Your task to perform on an android device: change notifications settings Image 0: 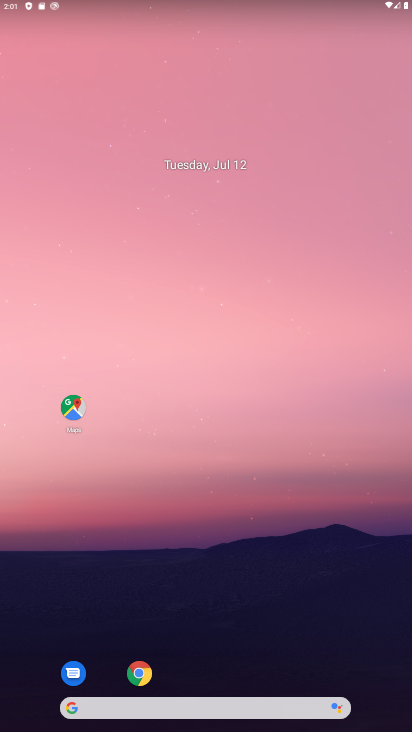
Step 0: drag from (278, 664) to (11, 85)
Your task to perform on an android device: change notifications settings Image 1: 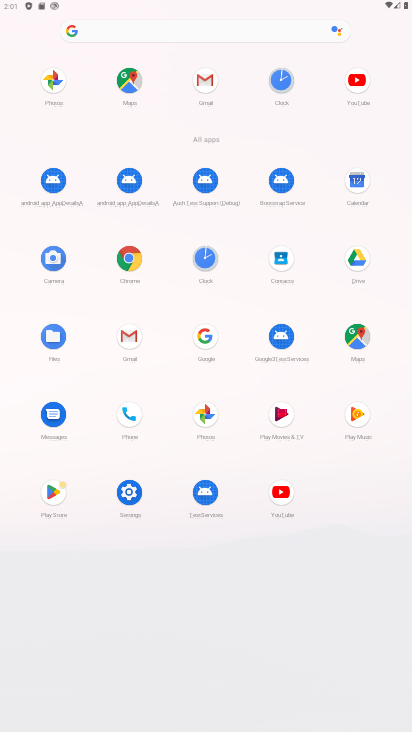
Step 1: click (126, 494)
Your task to perform on an android device: change notifications settings Image 2: 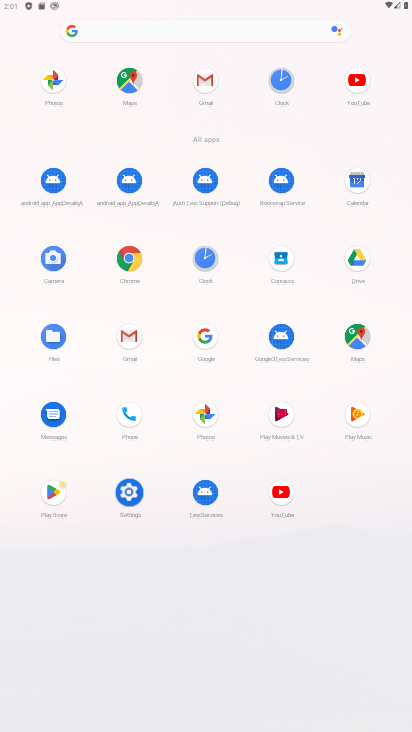
Step 2: click (126, 494)
Your task to perform on an android device: change notifications settings Image 3: 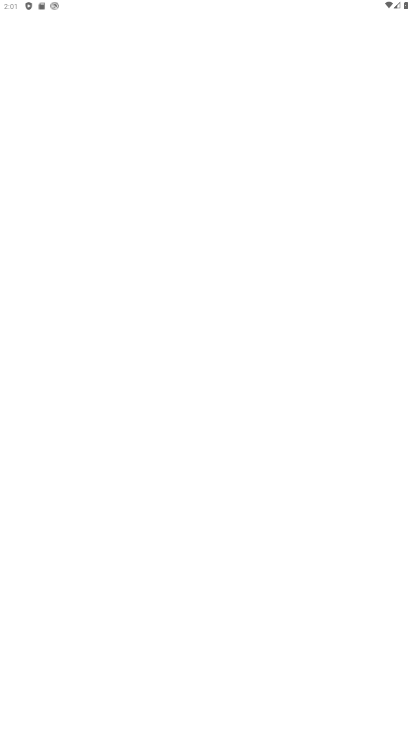
Step 3: click (126, 494)
Your task to perform on an android device: change notifications settings Image 4: 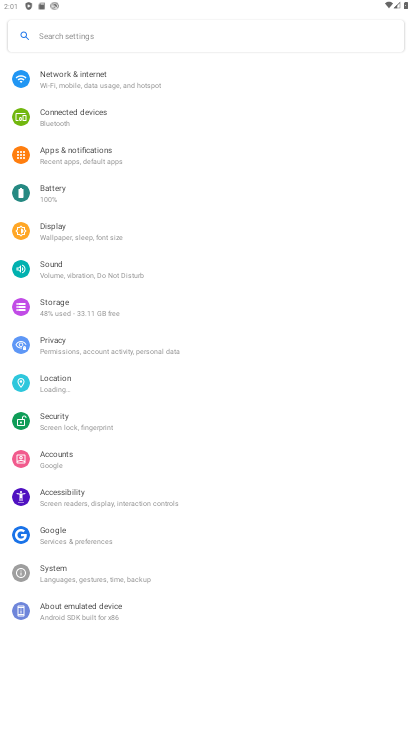
Step 4: click (126, 495)
Your task to perform on an android device: change notifications settings Image 5: 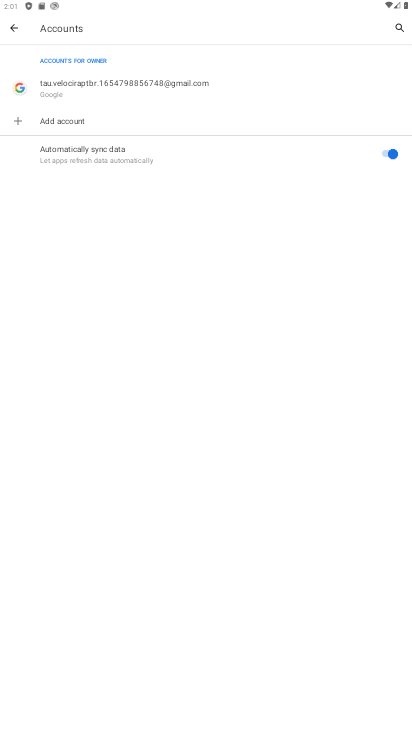
Step 5: click (10, 34)
Your task to perform on an android device: change notifications settings Image 6: 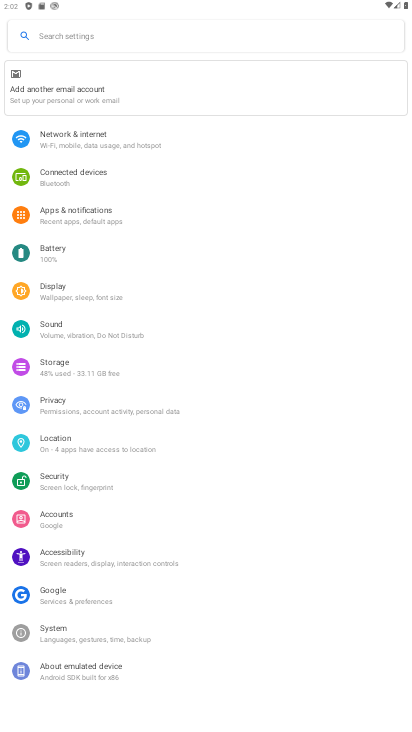
Step 6: click (64, 203)
Your task to perform on an android device: change notifications settings Image 7: 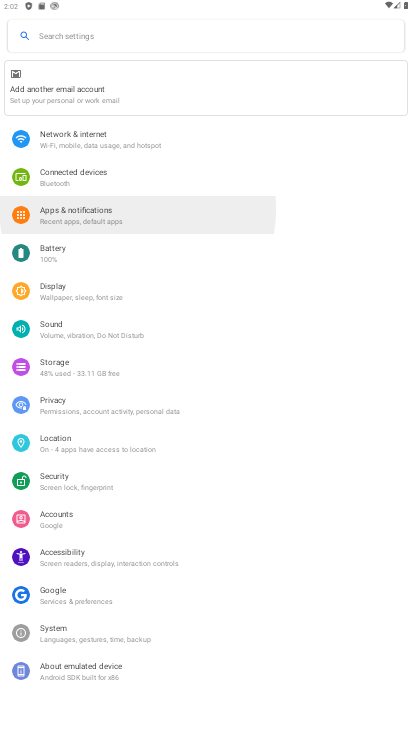
Step 7: click (64, 203)
Your task to perform on an android device: change notifications settings Image 8: 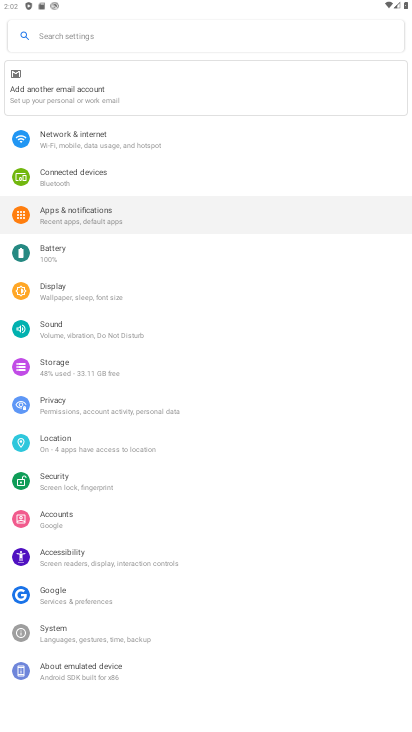
Step 8: click (58, 208)
Your task to perform on an android device: change notifications settings Image 9: 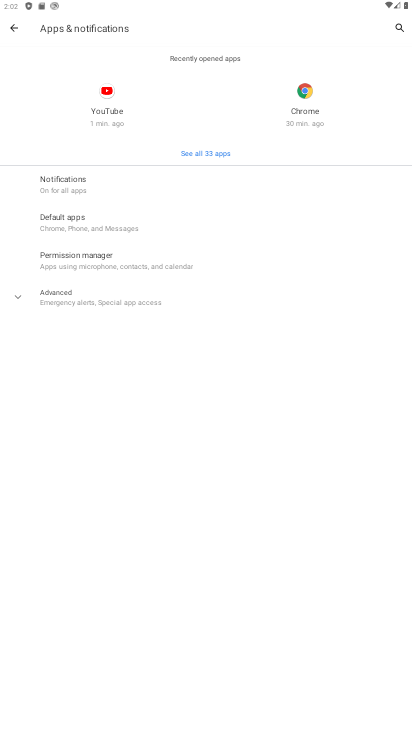
Step 9: click (75, 207)
Your task to perform on an android device: change notifications settings Image 10: 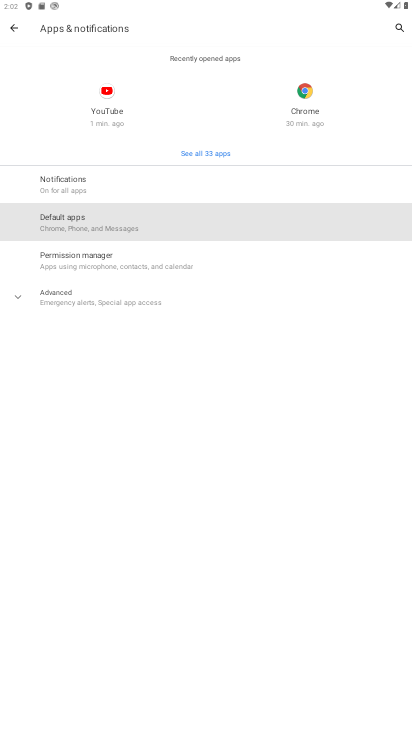
Step 10: click (77, 209)
Your task to perform on an android device: change notifications settings Image 11: 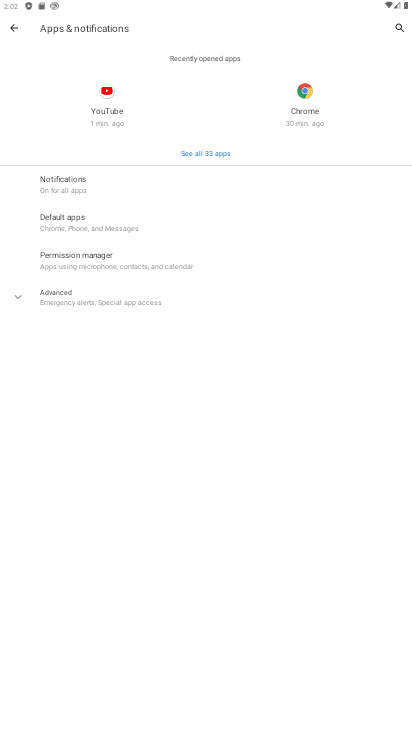
Step 11: click (78, 209)
Your task to perform on an android device: change notifications settings Image 12: 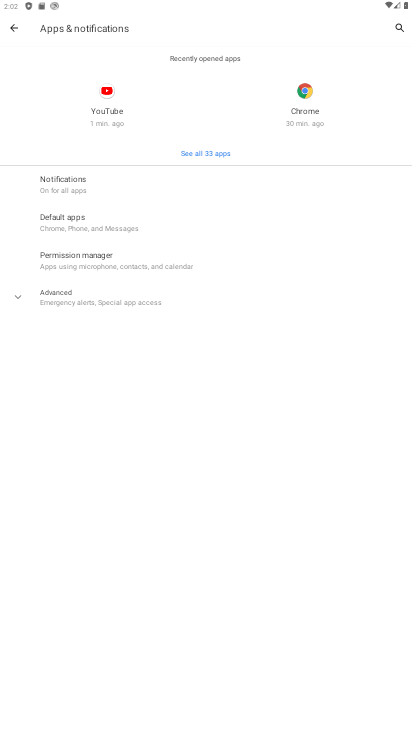
Step 12: click (78, 211)
Your task to perform on an android device: change notifications settings Image 13: 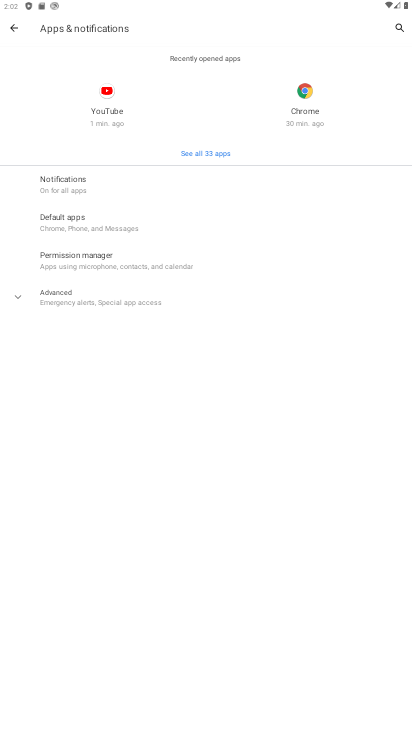
Step 13: click (79, 212)
Your task to perform on an android device: change notifications settings Image 14: 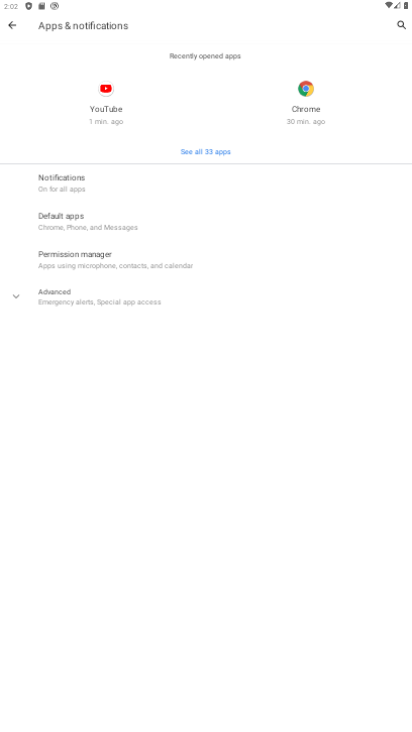
Step 14: click (79, 212)
Your task to perform on an android device: change notifications settings Image 15: 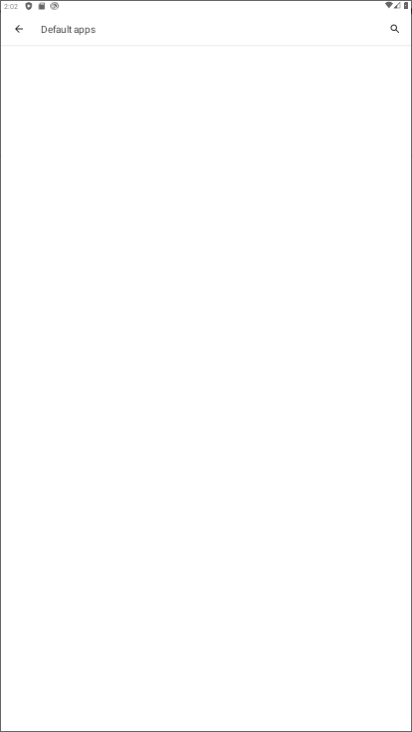
Step 15: click (84, 217)
Your task to perform on an android device: change notifications settings Image 16: 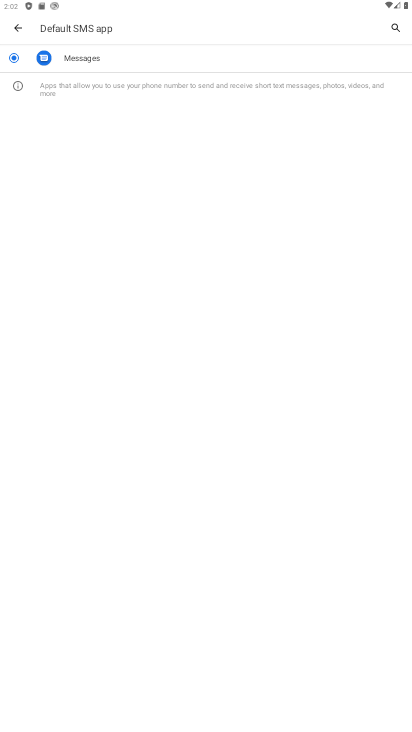
Step 16: task complete